Your task to perform on an android device: What is the news today? Image 0: 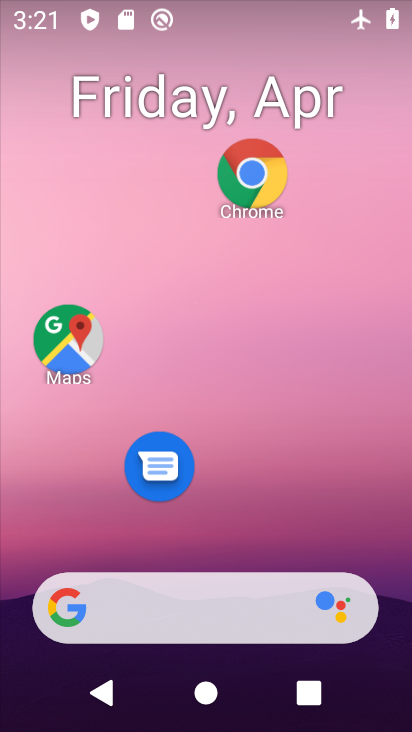
Step 0: drag from (316, 485) to (175, 138)
Your task to perform on an android device: What is the news today? Image 1: 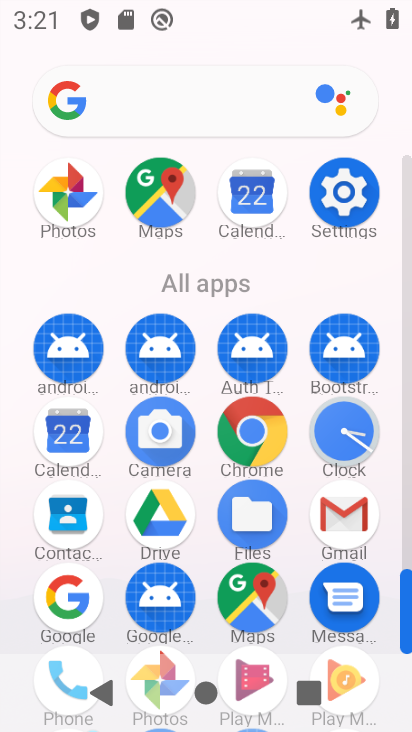
Step 1: click (69, 593)
Your task to perform on an android device: What is the news today? Image 2: 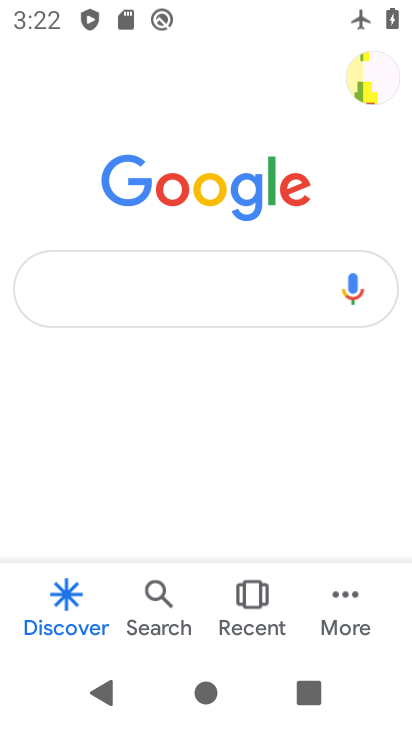
Step 2: task complete